Your task to perform on an android device: What's the news about the US economy? Image 0: 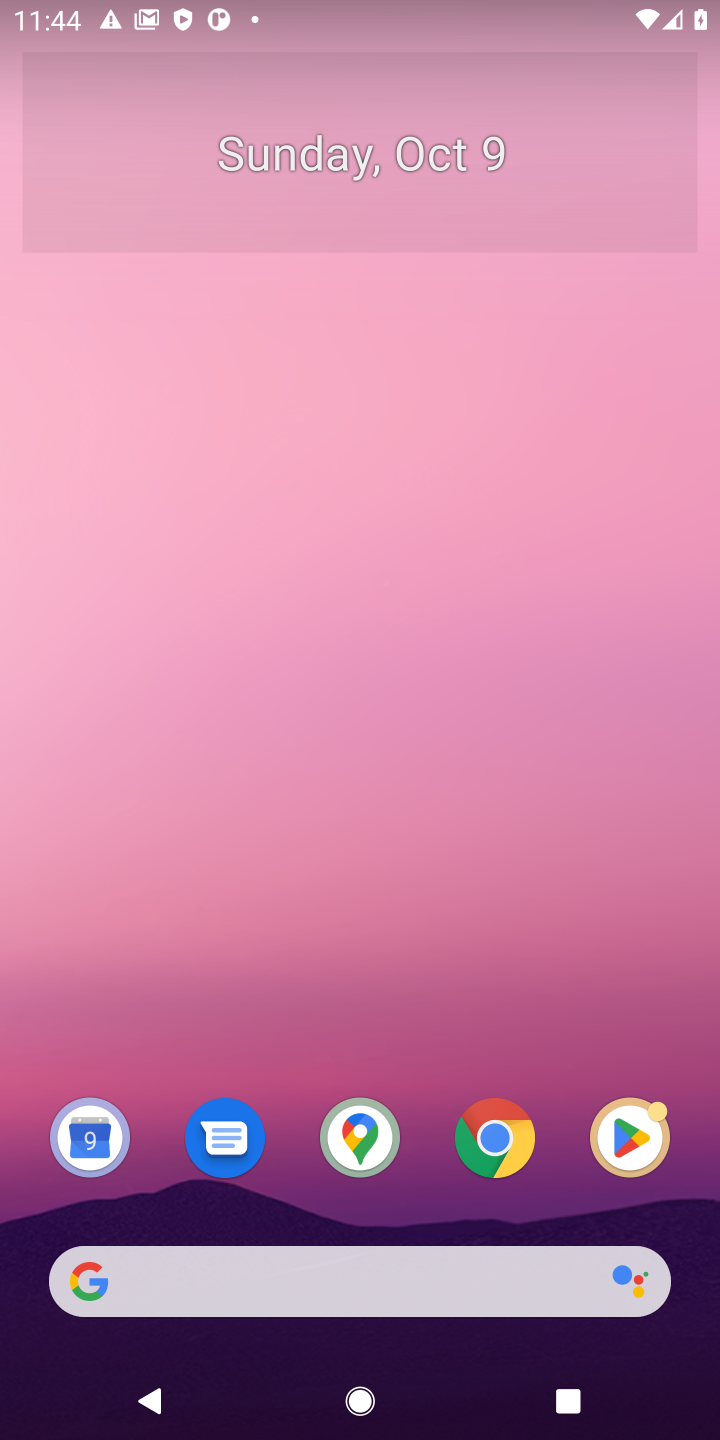
Step 0: click (501, 1137)
Your task to perform on an android device: What's the news about the US economy? Image 1: 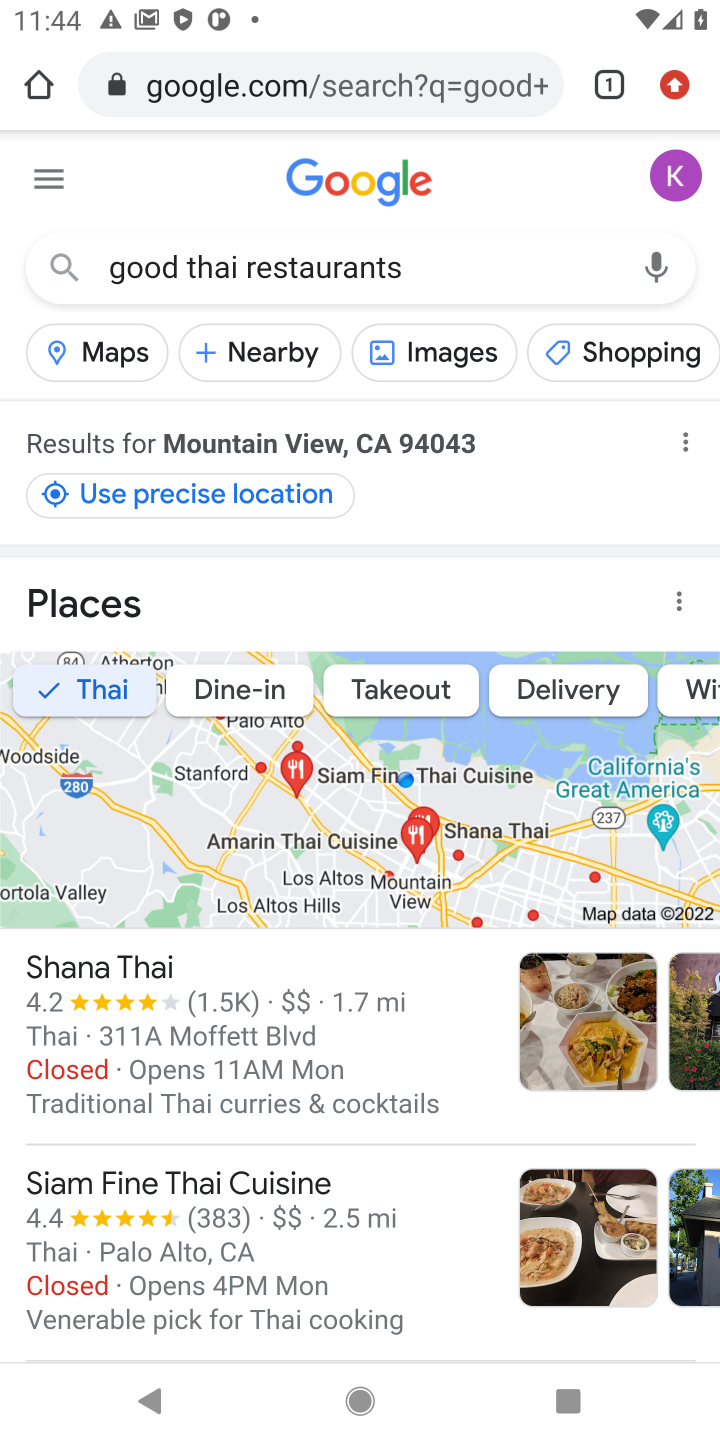
Step 1: click (460, 266)
Your task to perform on an android device: What's the news about the US economy? Image 2: 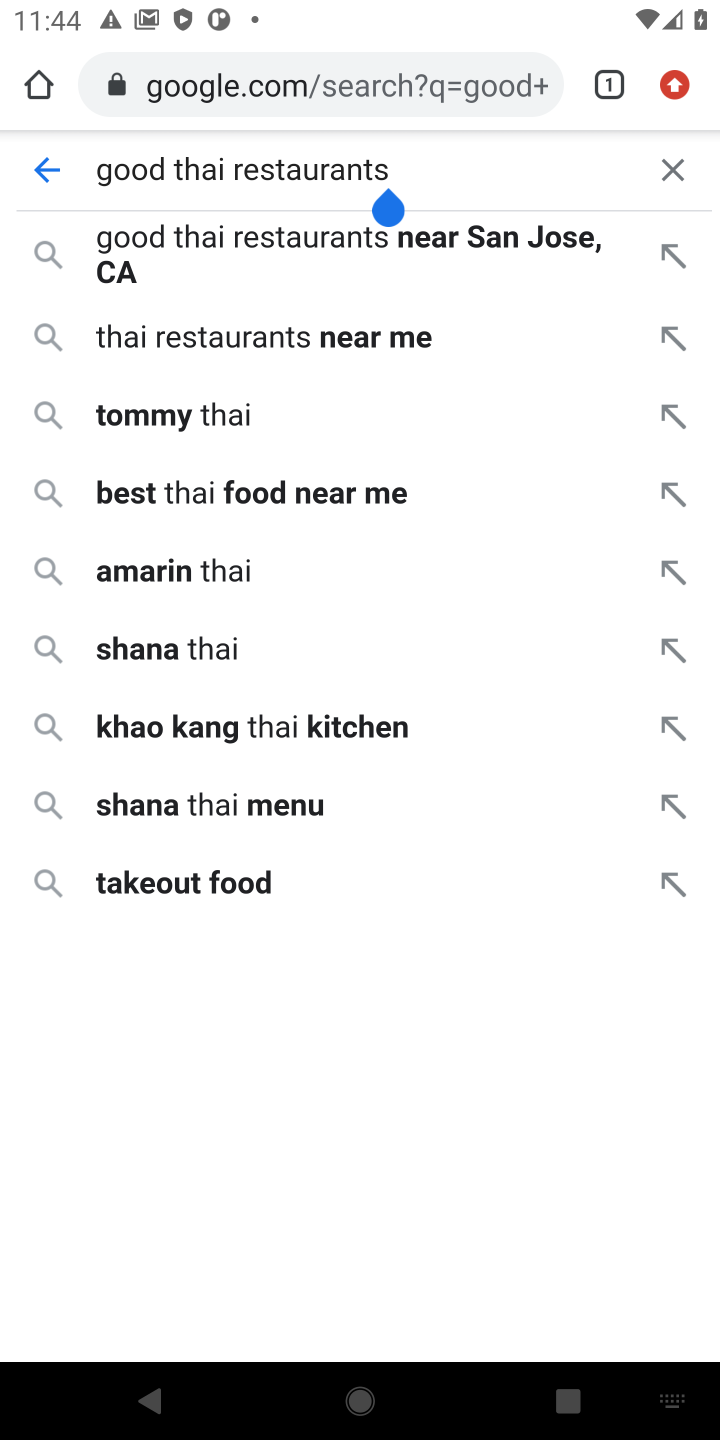
Step 2: click (658, 171)
Your task to perform on an android device: What's the news about the US economy? Image 3: 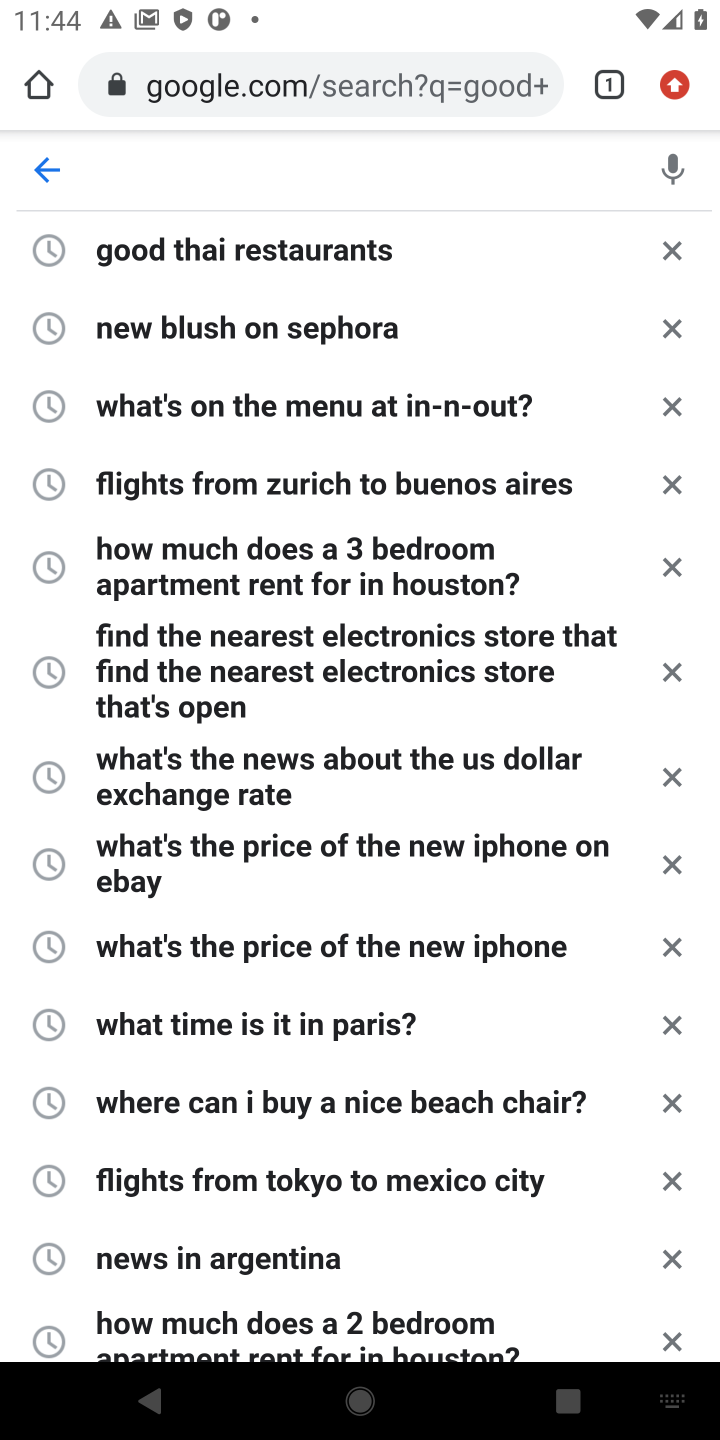
Step 3: type "news about us economy"
Your task to perform on an android device: What's the news about the US economy? Image 4: 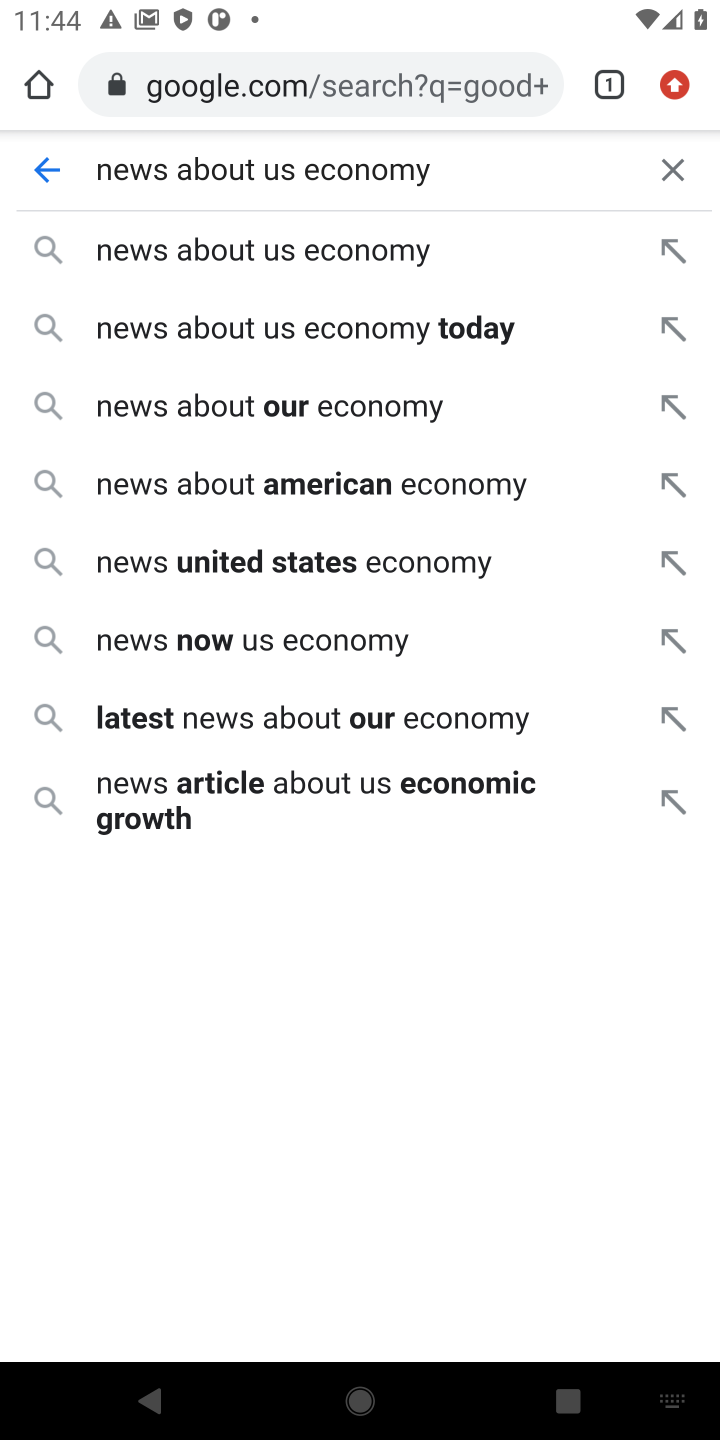
Step 4: press enter
Your task to perform on an android device: What's the news about the US economy? Image 5: 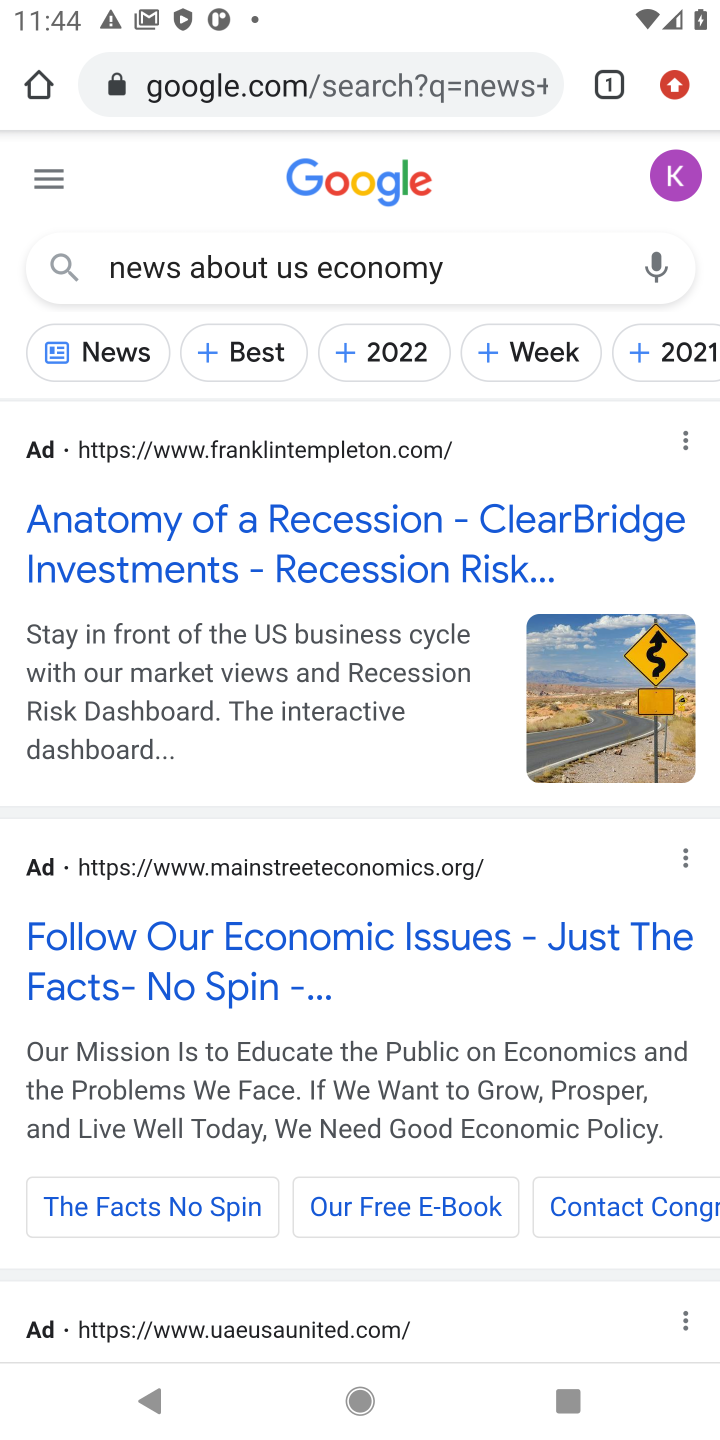
Step 5: click (82, 327)
Your task to perform on an android device: What's the news about the US economy? Image 6: 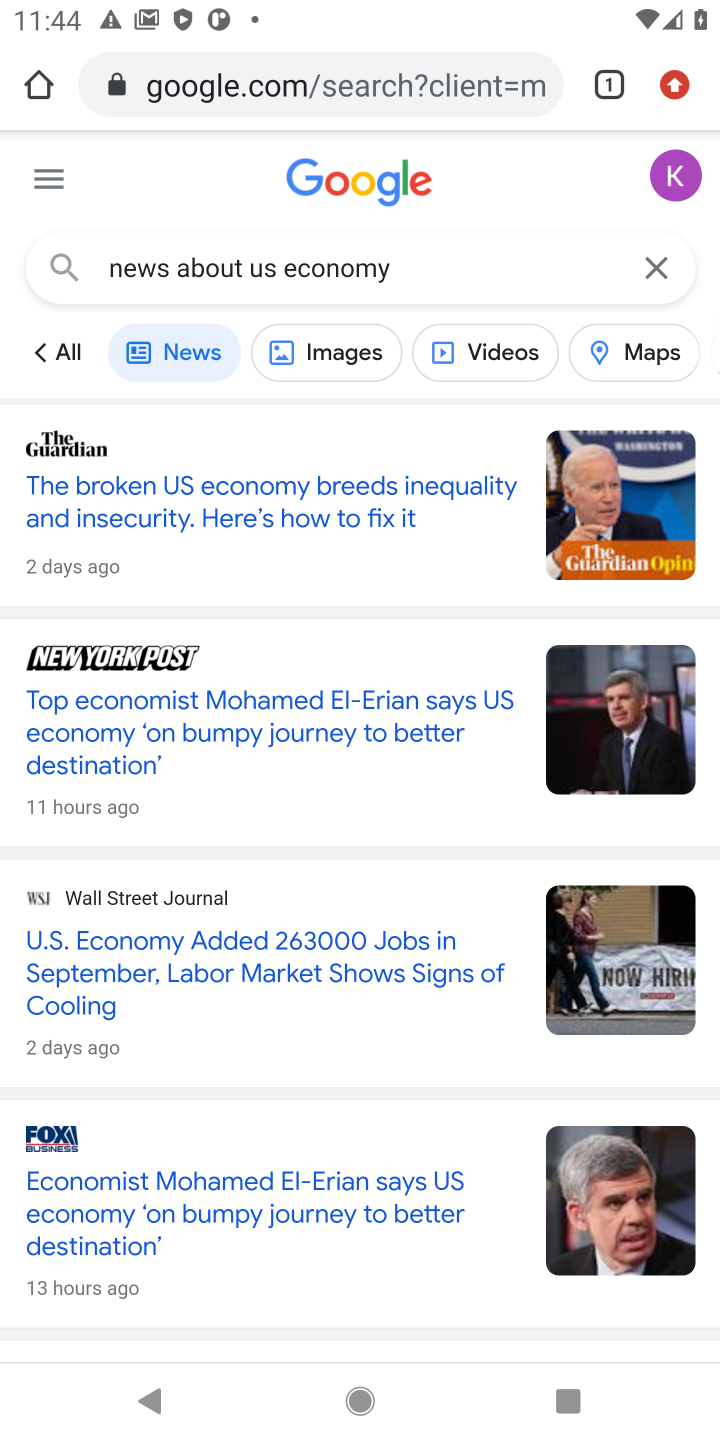
Step 6: task complete